Your task to perform on an android device: Go to Wikipedia Image 0: 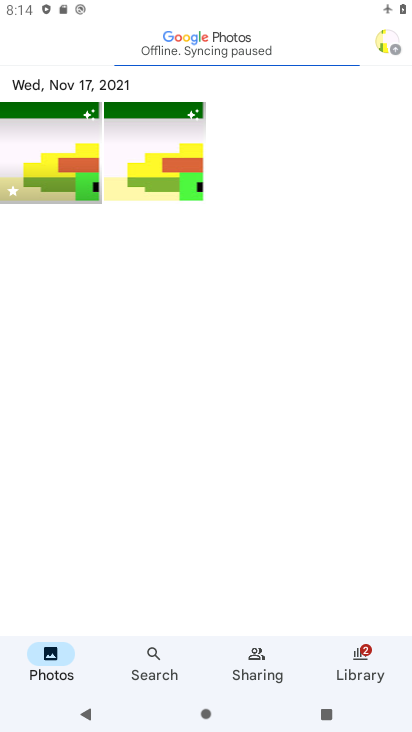
Step 0: press home button
Your task to perform on an android device: Go to Wikipedia Image 1: 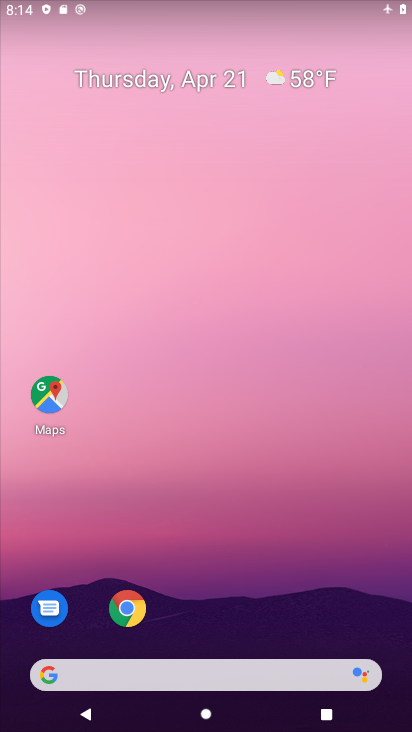
Step 1: click (121, 604)
Your task to perform on an android device: Go to Wikipedia Image 2: 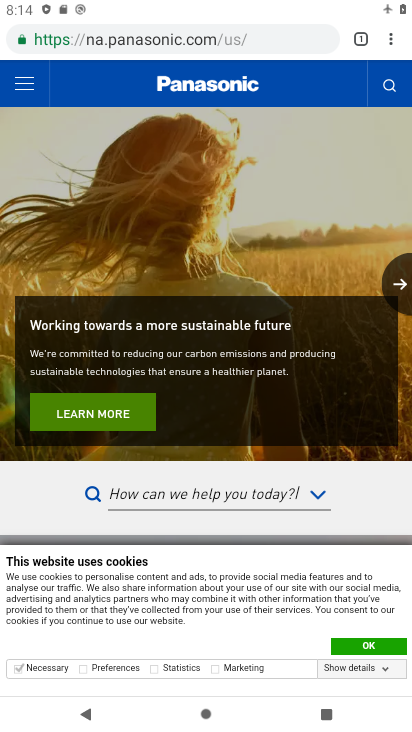
Step 2: press back button
Your task to perform on an android device: Go to Wikipedia Image 3: 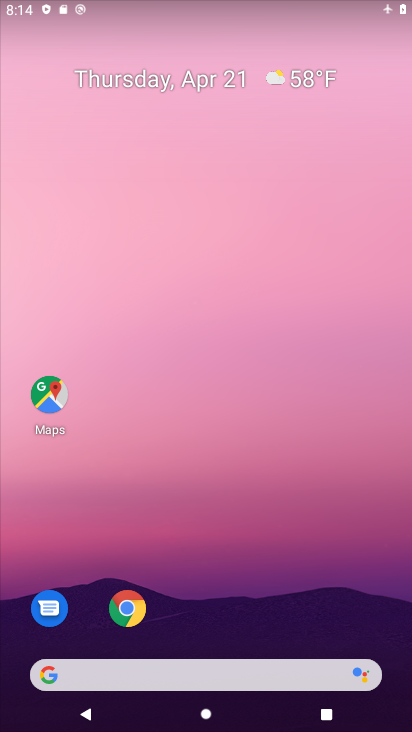
Step 3: click (130, 604)
Your task to perform on an android device: Go to Wikipedia Image 4: 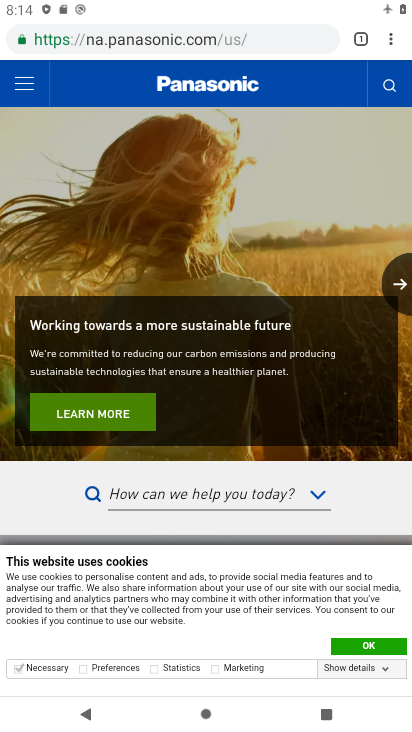
Step 4: click (392, 42)
Your task to perform on an android device: Go to Wikipedia Image 5: 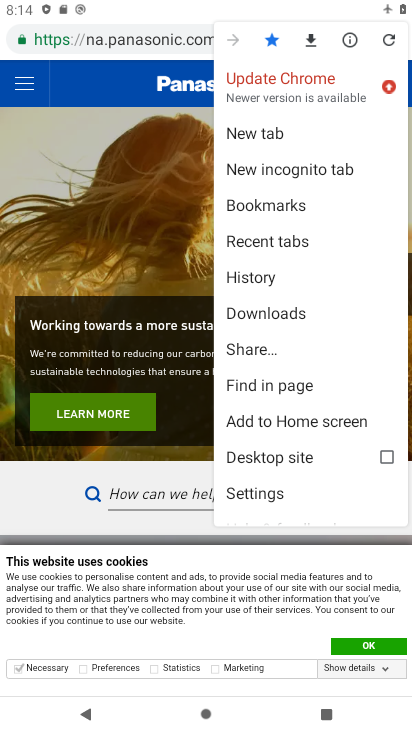
Step 5: click (323, 130)
Your task to perform on an android device: Go to Wikipedia Image 6: 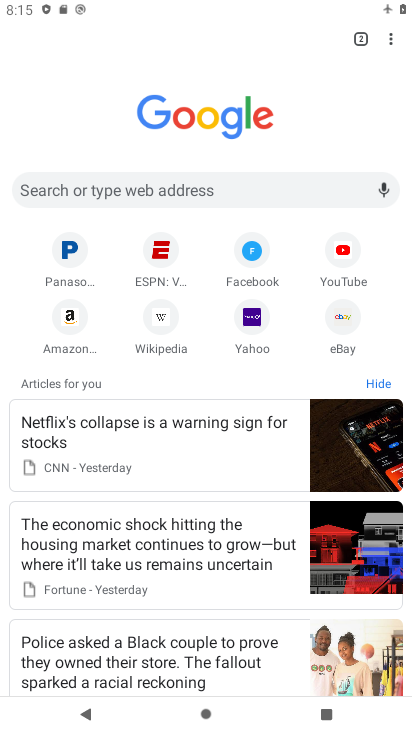
Step 6: click (161, 322)
Your task to perform on an android device: Go to Wikipedia Image 7: 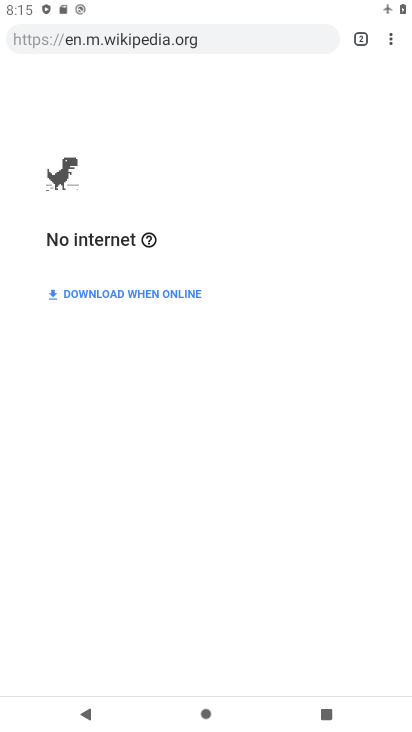
Step 7: task complete